Your task to perform on an android device: turn off translation in the chrome app Image 0: 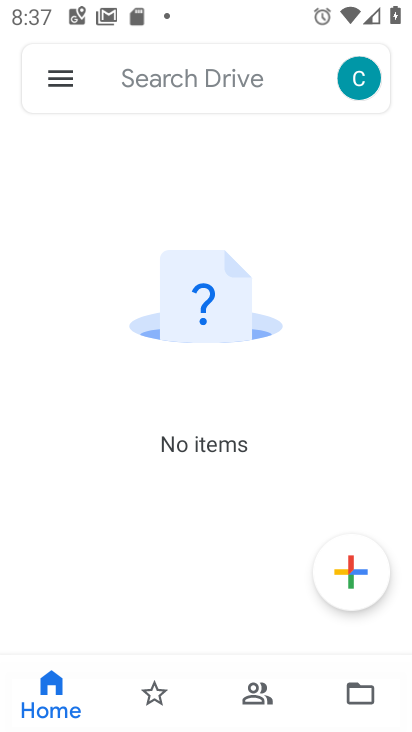
Step 0: press home button
Your task to perform on an android device: turn off translation in the chrome app Image 1: 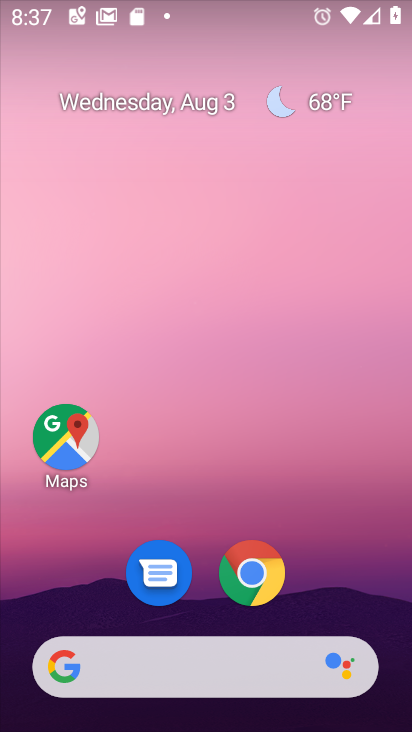
Step 1: click (257, 581)
Your task to perform on an android device: turn off translation in the chrome app Image 2: 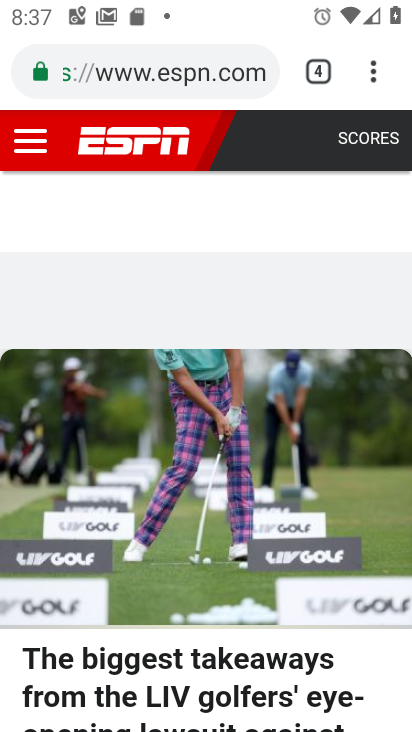
Step 2: drag from (374, 68) to (197, 566)
Your task to perform on an android device: turn off translation in the chrome app Image 3: 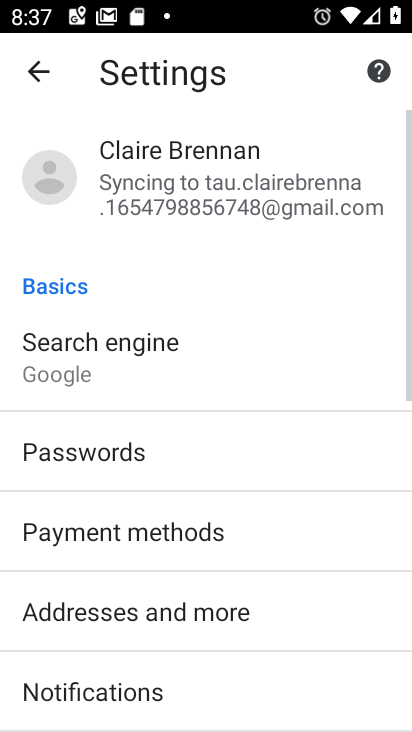
Step 3: drag from (282, 677) to (291, 234)
Your task to perform on an android device: turn off translation in the chrome app Image 4: 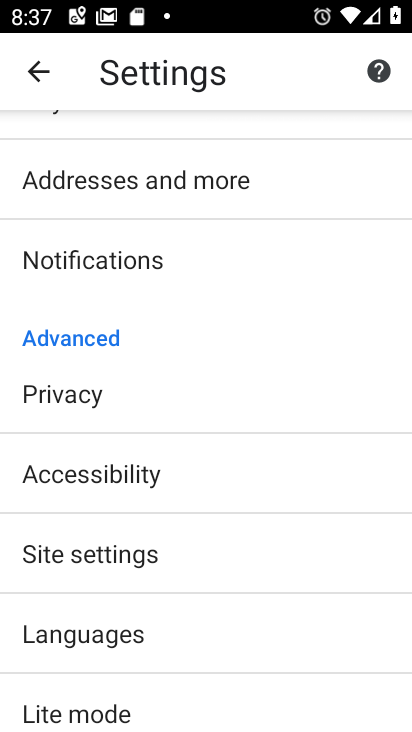
Step 4: click (106, 640)
Your task to perform on an android device: turn off translation in the chrome app Image 5: 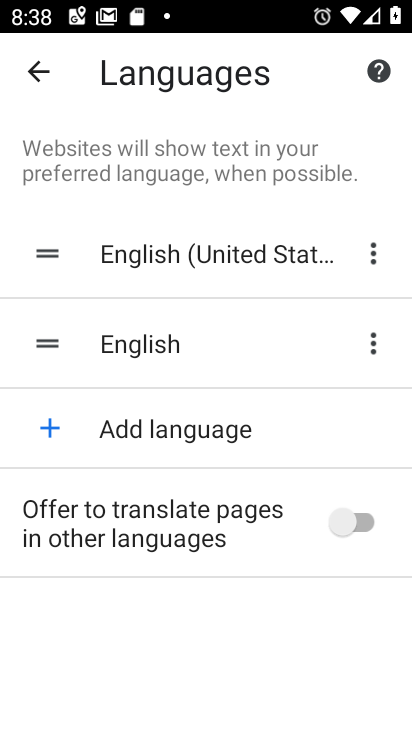
Step 5: task complete